Your task to perform on an android device: turn on showing notifications on the lock screen Image 0: 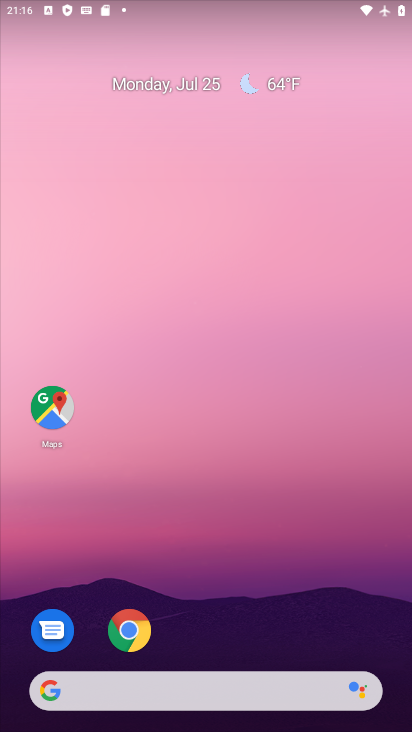
Step 0: drag from (398, 610) to (347, 99)
Your task to perform on an android device: turn on showing notifications on the lock screen Image 1: 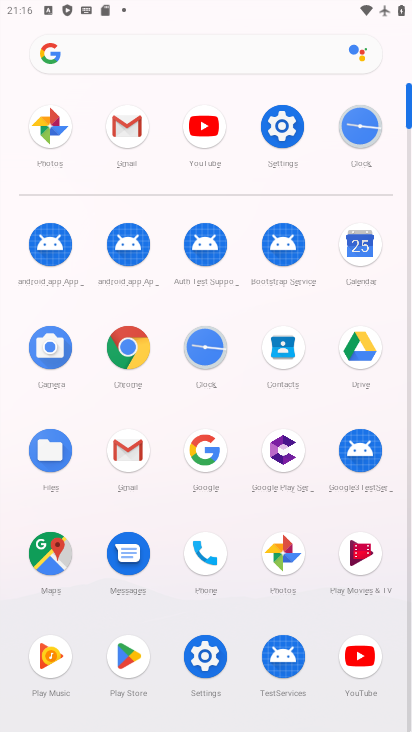
Step 1: click (206, 658)
Your task to perform on an android device: turn on showing notifications on the lock screen Image 2: 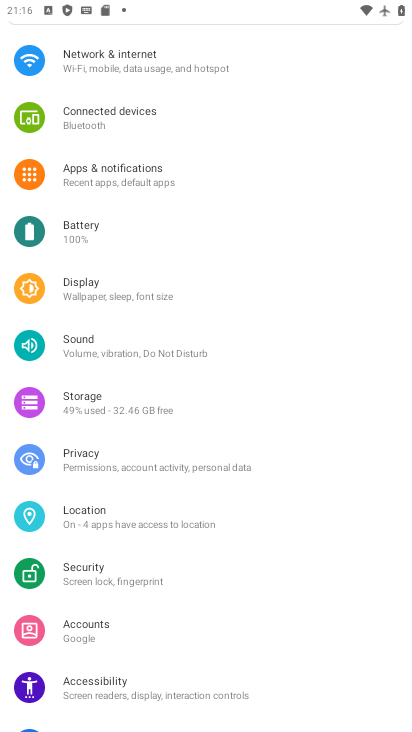
Step 2: click (125, 172)
Your task to perform on an android device: turn on showing notifications on the lock screen Image 3: 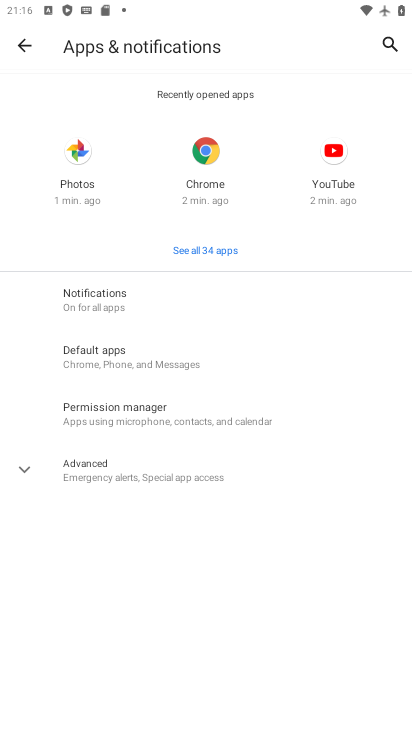
Step 3: click (104, 297)
Your task to perform on an android device: turn on showing notifications on the lock screen Image 4: 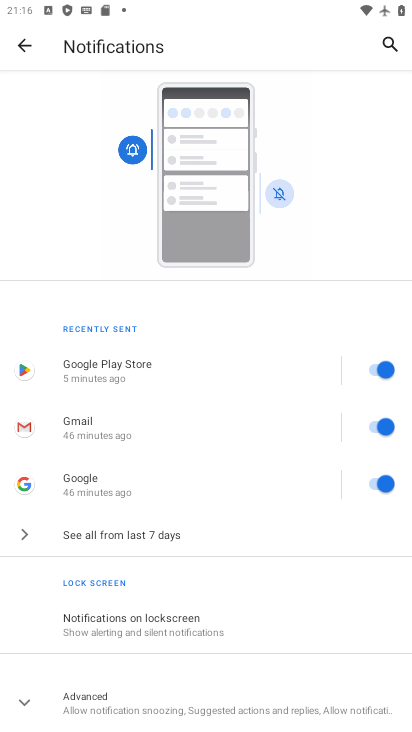
Step 4: click (138, 621)
Your task to perform on an android device: turn on showing notifications on the lock screen Image 5: 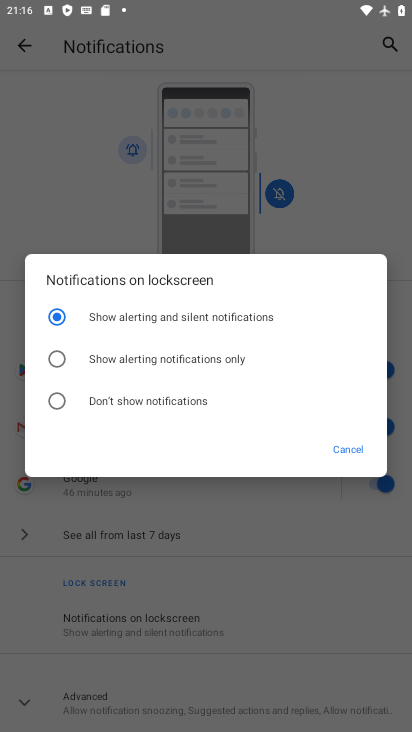
Step 5: task complete